Your task to perform on an android device: see sites visited before in the chrome app Image 0: 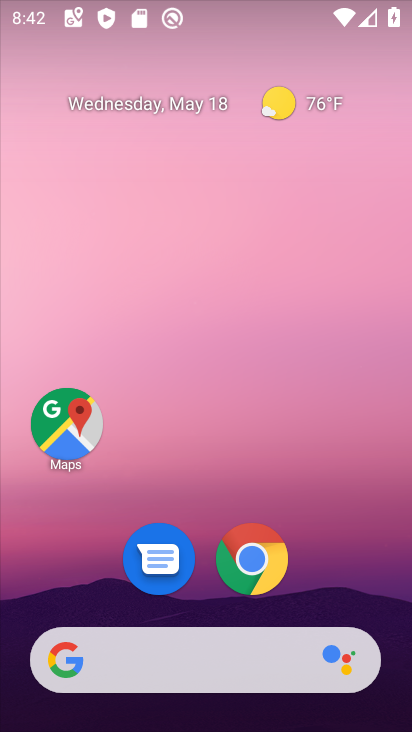
Step 0: drag from (327, 559) to (331, 130)
Your task to perform on an android device: see sites visited before in the chrome app Image 1: 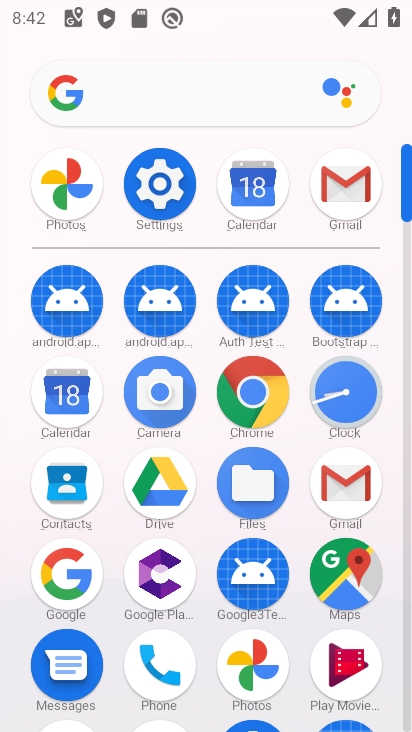
Step 1: click (250, 395)
Your task to perform on an android device: see sites visited before in the chrome app Image 2: 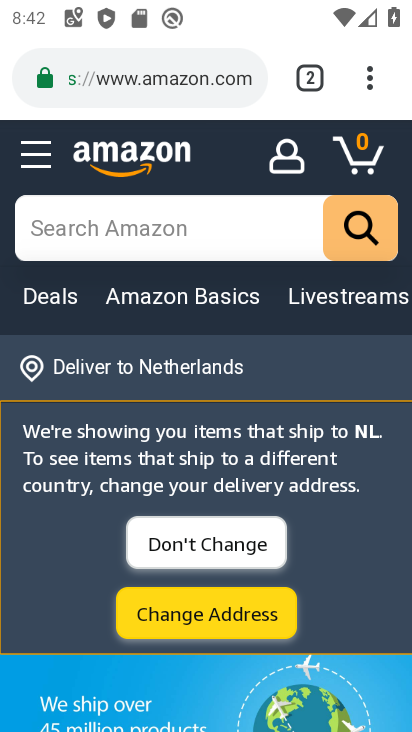
Step 2: click (368, 83)
Your task to perform on an android device: see sites visited before in the chrome app Image 3: 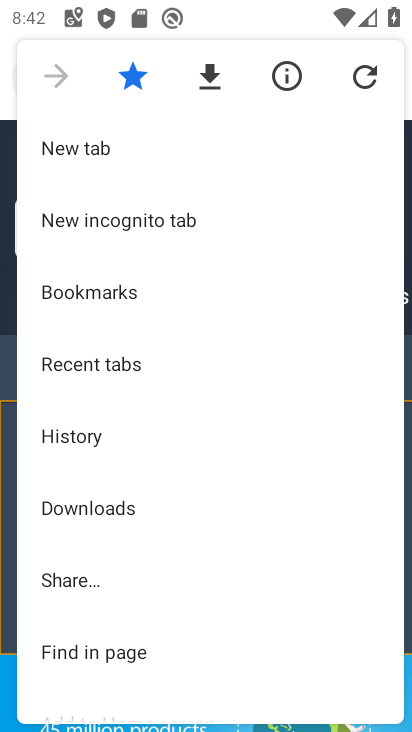
Step 3: drag from (142, 621) to (184, 182)
Your task to perform on an android device: see sites visited before in the chrome app Image 4: 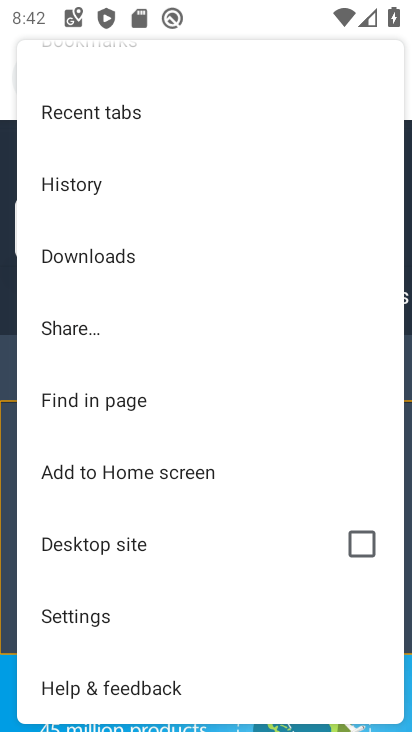
Step 4: click (92, 176)
Your task to perform on an android device: see sites visited before in the chrome app Image 5: 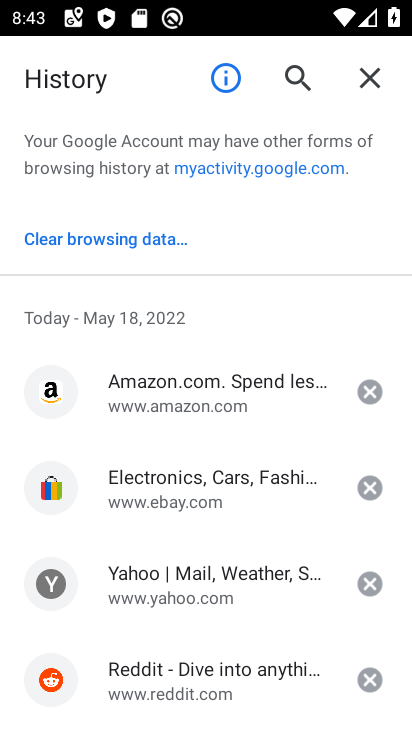
Step 5: task complete